Your task to perform on an android device: Open Google Maps Image 0: 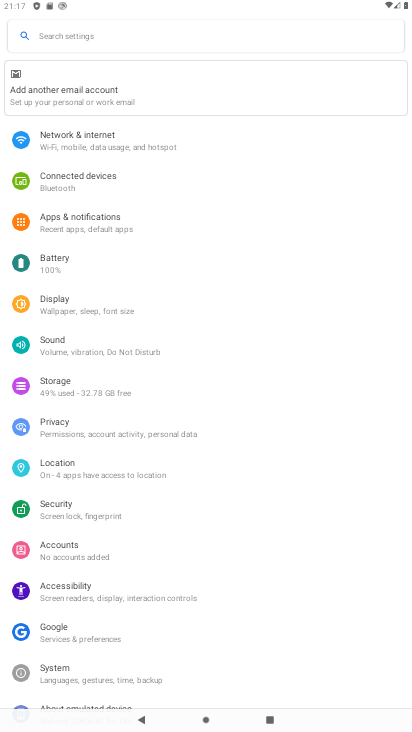
Step 0: press home button
Your task to perform on an android device: Open Google Maps Image 1: 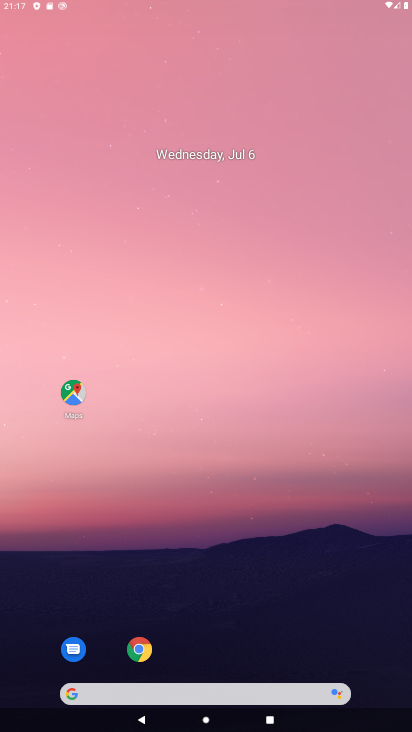
Step 1: drag from (225, 508) to (251, 101)
Your task to perform on an android device: Open Google Maps Image 2: 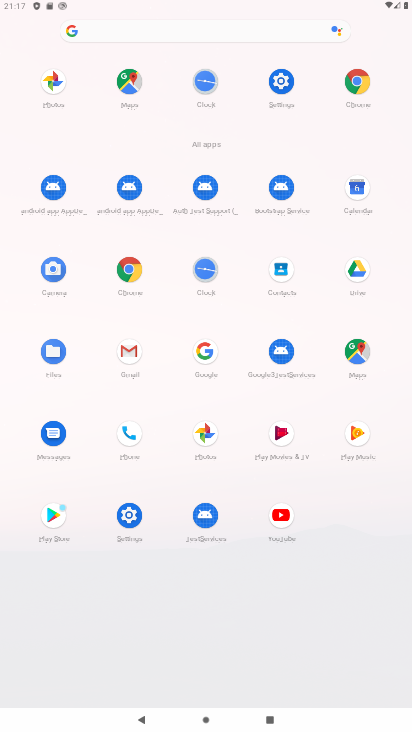
Step 2: click (118, 83)
Your task to perform on an android device: Open Google Maps Image 3: 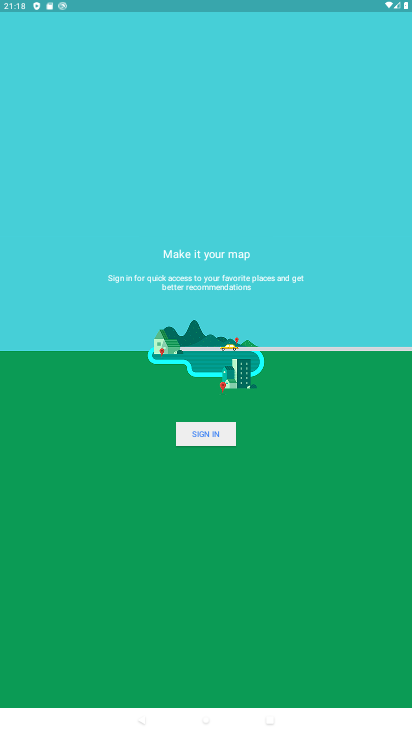
Step 3: press home button
Your task to perform on an android device: Open Google Maps Image 4: 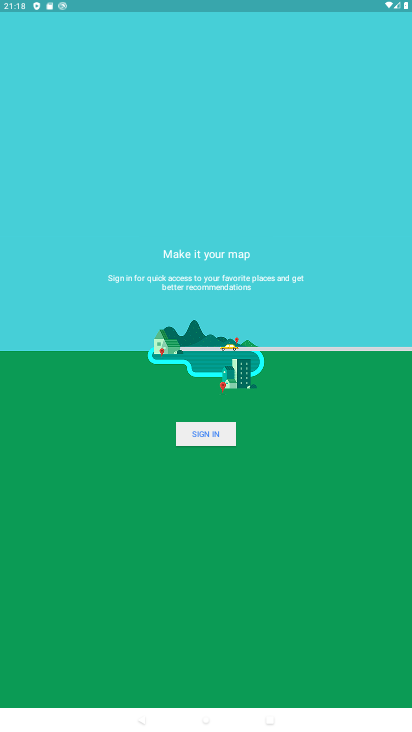
Step 4: press home button
Your task to perform on an android device: Open Google Maps Image 5: 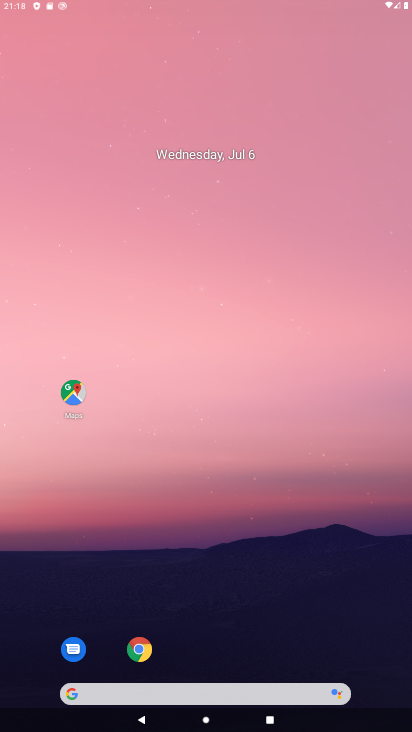
Step 5: drag from (286, 581) to (257, 157)
Your task to perform on an android device: Open Google Maps Image 6: 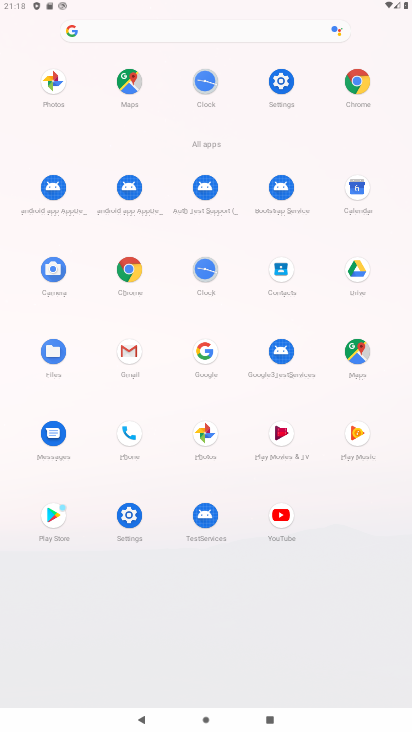
Step 6: click (353, 348)
Your task to perform on an android device: Open Google Maps Image 7: 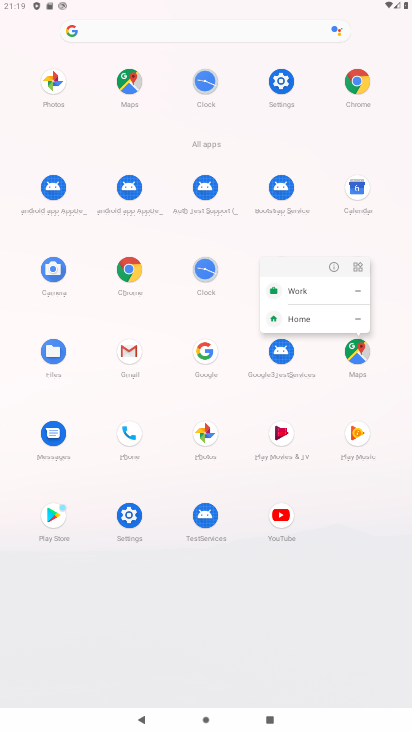
Step 7: click (347, 361)
Your task to perform on an android device: Open Google Maps Image 8: 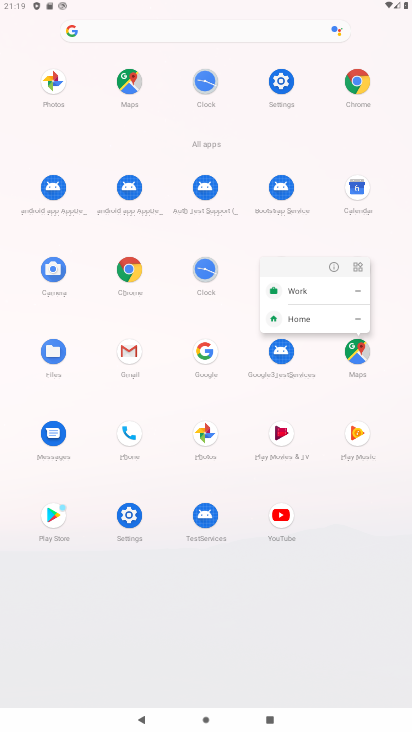
Step 8: click (359, 356)
Your task to perform on an android device: Open Google Maps Image 9: 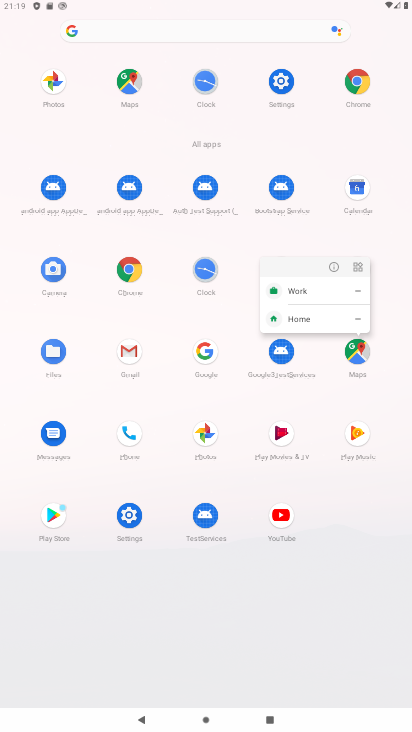
Step 9: click (368, 355)
Your task to perform on an android device: Open Google Maps Image 10: 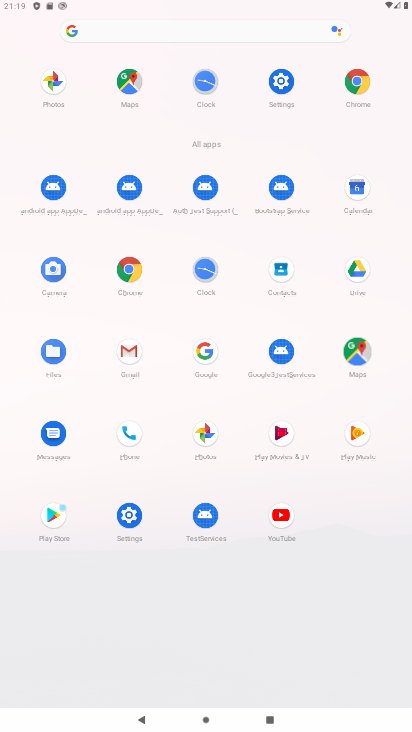
Step 10: click (369, 355)
Your task to perform on an android device: Open Google Maps Image 11: 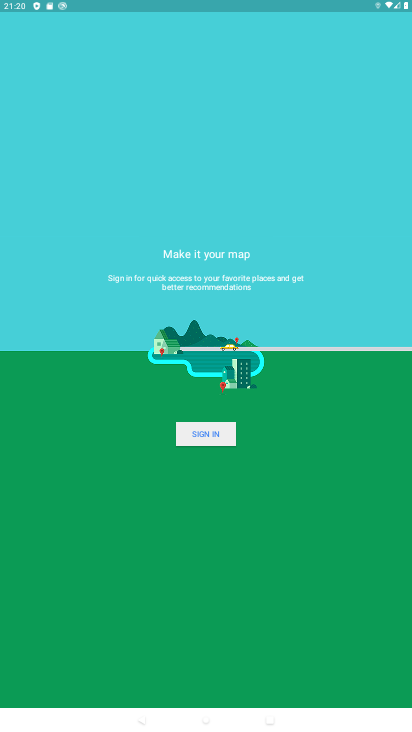
Step 11: task complete